Your task to perform on an android device: Open the calendar app, open the side menu, and click the "Day" option Image 0: 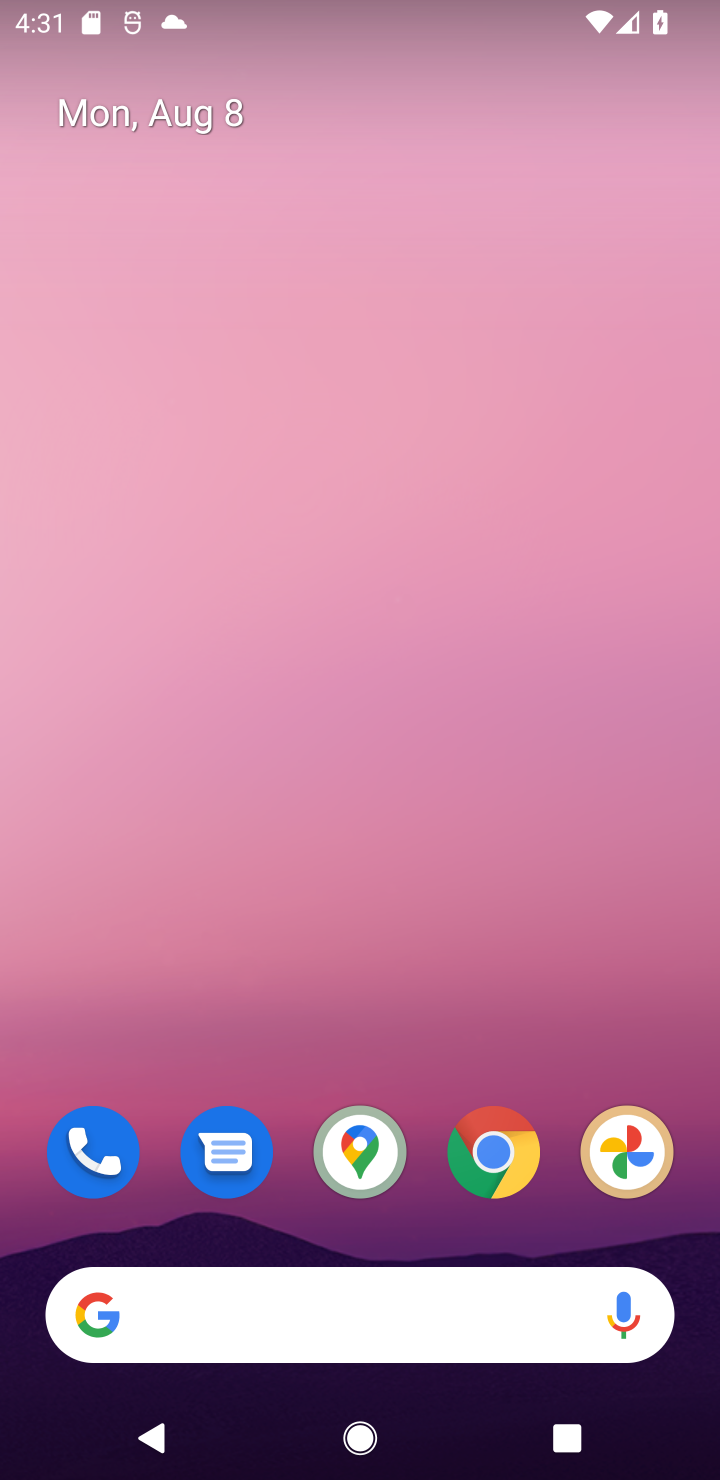
Step 0: drag from (344, 1239) to (79, 532)
Your task to perform on an android device: Open the calendar app, open the side menu, and click the "Day" option Image 1: 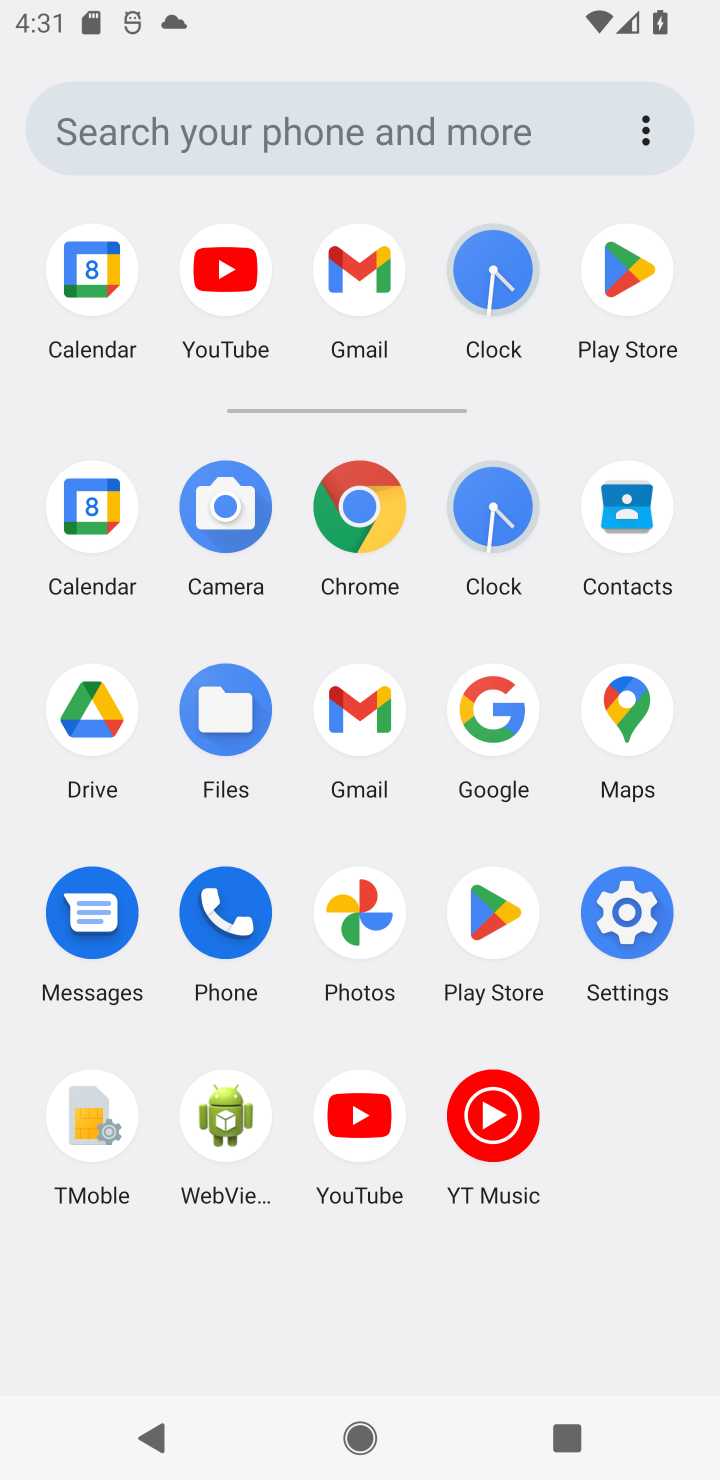
Step 1: click (107, 520)
Your task to perform on an android device: Open the calendar app, open the side menu, and click the "Day" option Image 2: 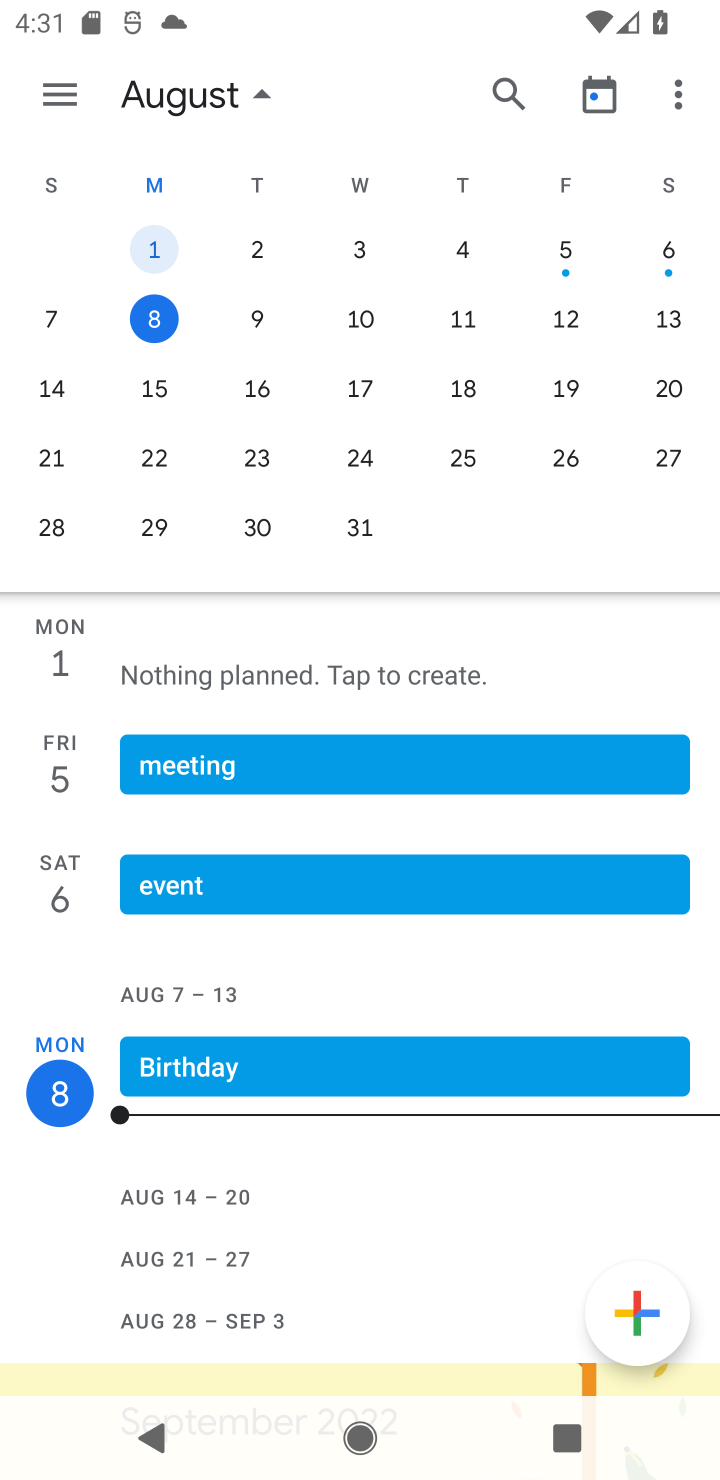
Step 2: click (44, 98)
Your task to perform on an android device: Open the calendar app, open the side menu, and click the "Day" option Image 3: 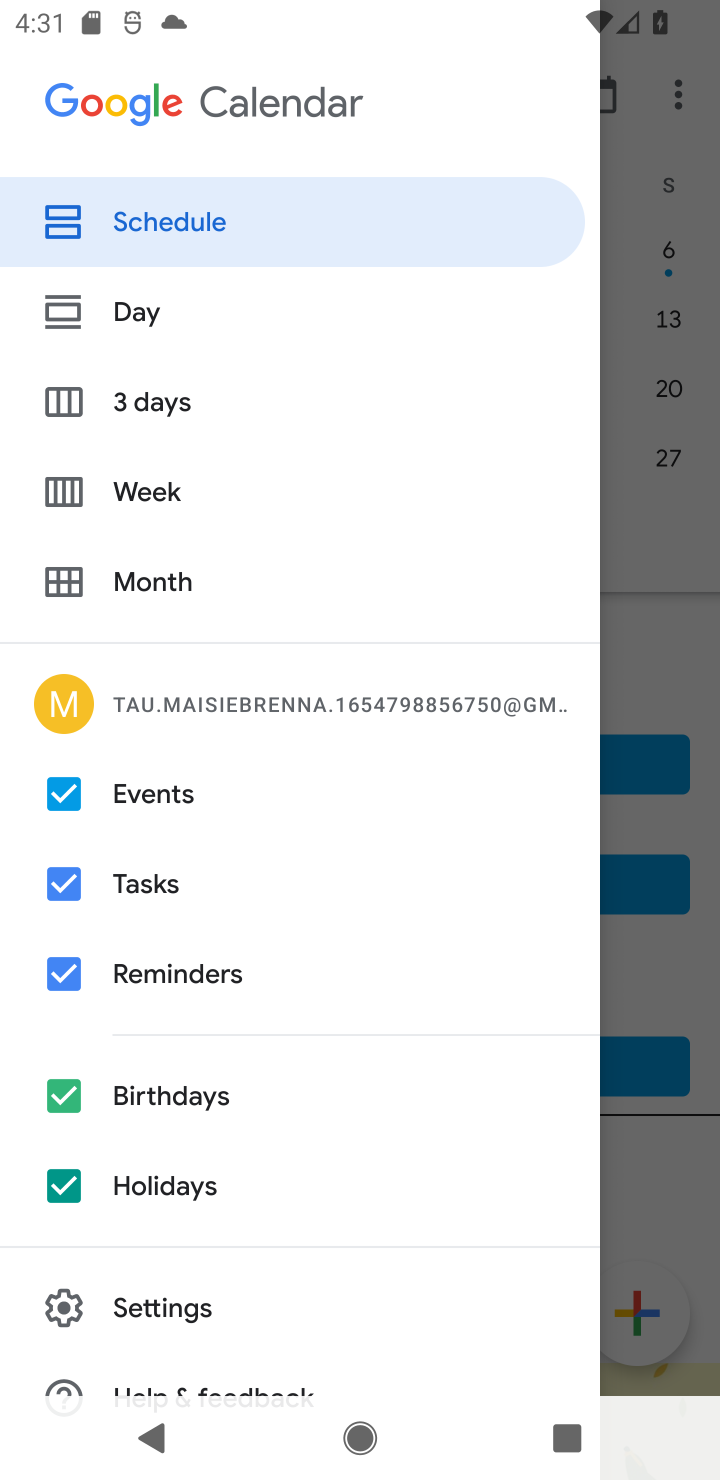
Step 3: click (84, 316)
Your task to perform on an android device: Open the calendar app, open the side menu, and click the "Day" option Image 4: 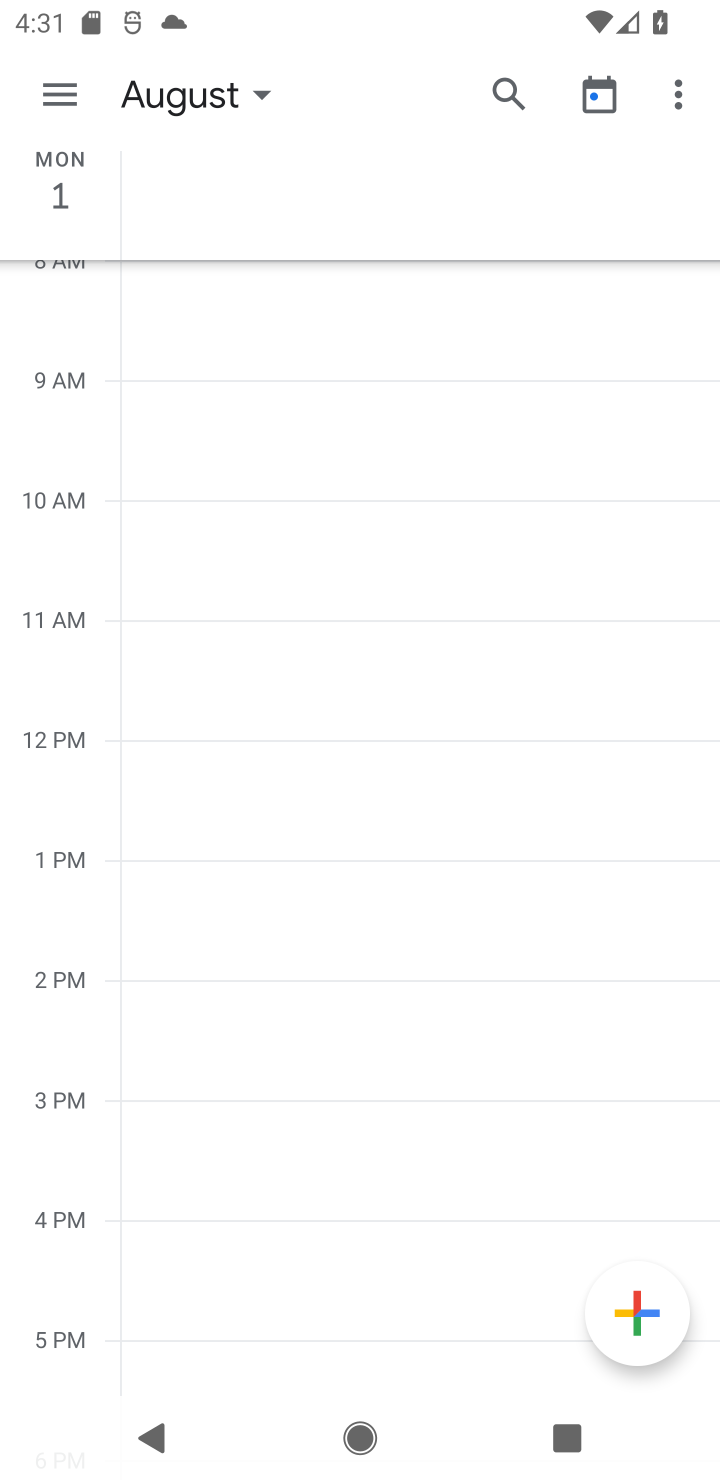
Step 4: task complete